Your task to perform on an android device: open a new tab in the chrome app Image 0: 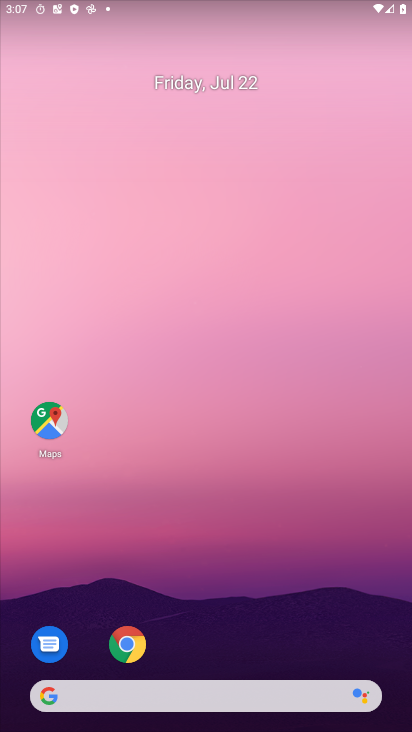
Step 0: drag from (206, 663) to (233, 135)
Your task to perform on an android device: open a new tab in the chrome app Image 1: 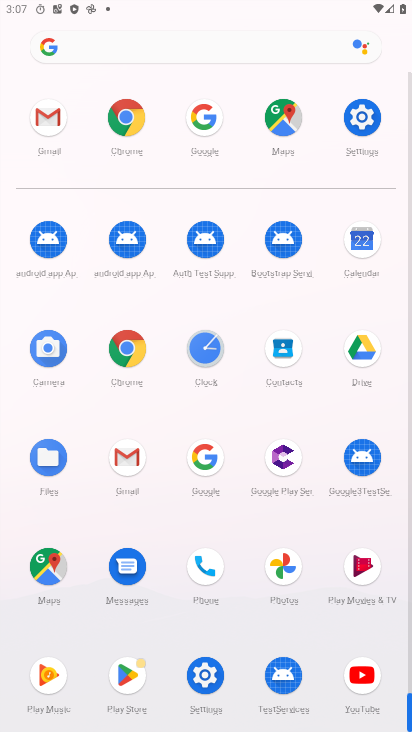
Step 1: click (119, 353)
Your task to perform on an android device: open a new tab in the chrome app Image 2: 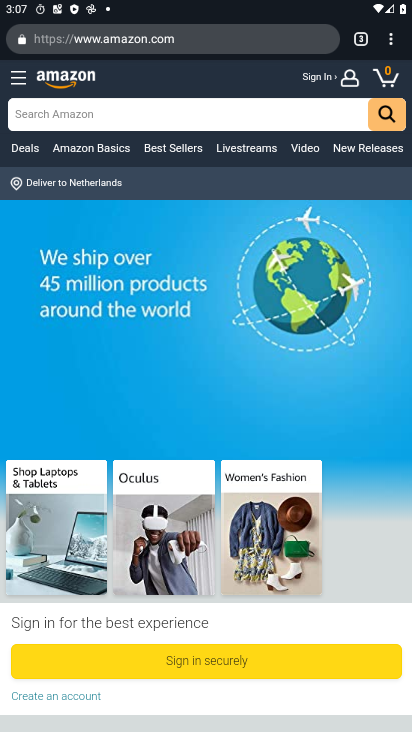
Step 2: drag from (354, 37) to (332, 325)
Your task to perform on an android device: open a new tab in the chrome app Image 3: 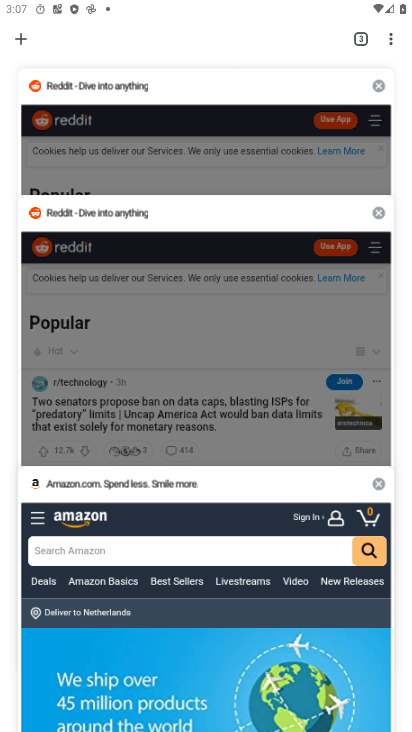
Step 3: click (23, 50)
Your task to perform on an android device: open a new tab in the chrome app Image 4: 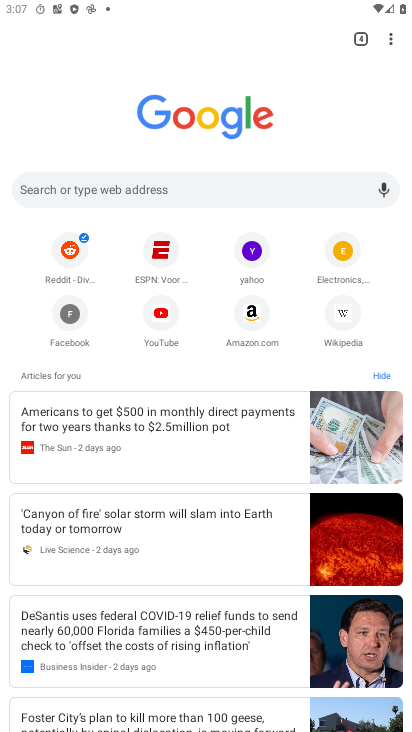
Step 4: task complete